Your task to perform on an android device: Open the Play Movies app and select the watchlist tab. Image 0: 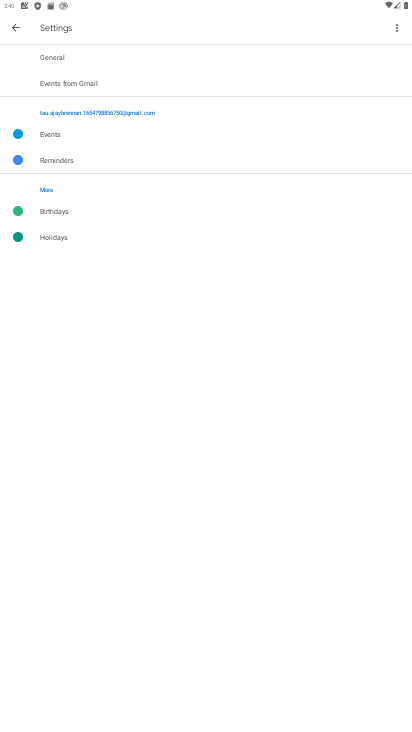
Step 0: press home button
Your task to perform on an android device: Open the Play Movies app and select the watchlist tab. Image 1: 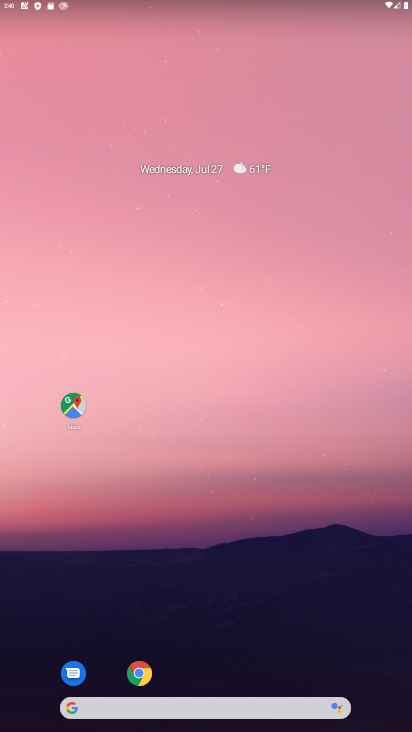
Step 1: drag from (240, 607) to (164, 122)
Your task to perform on an android device: Open the Play Movies app and select the watchlist tab. Image 2: 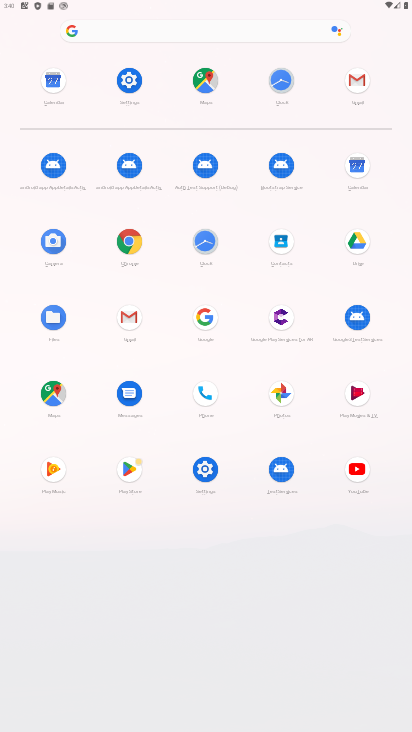
Step 2: click (352, 397)
Your task to perform on an android device: Open the Play Movies app and select the watchlist tab. Image 3: 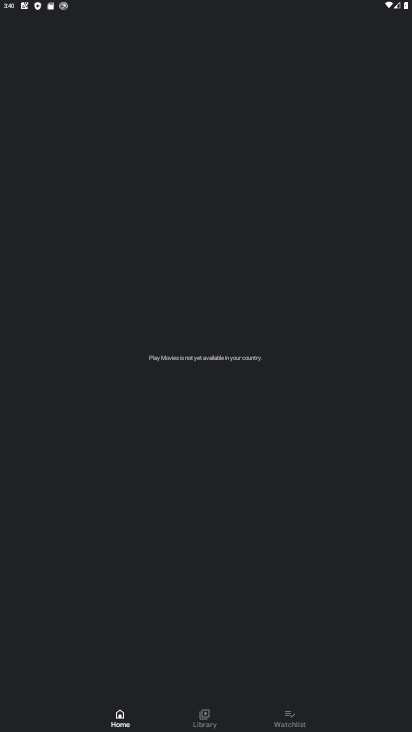
Step 3: click (288, 721)
Your task to perform on an android device: Open the Play Movies app and select the watchlist tab. Image 4: 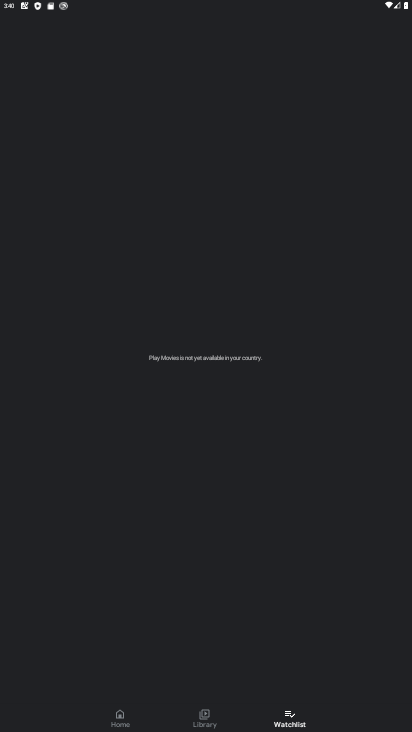
Step 4: task complete